Your task to perform on an android device: toggle improve location accuracy Image 0: 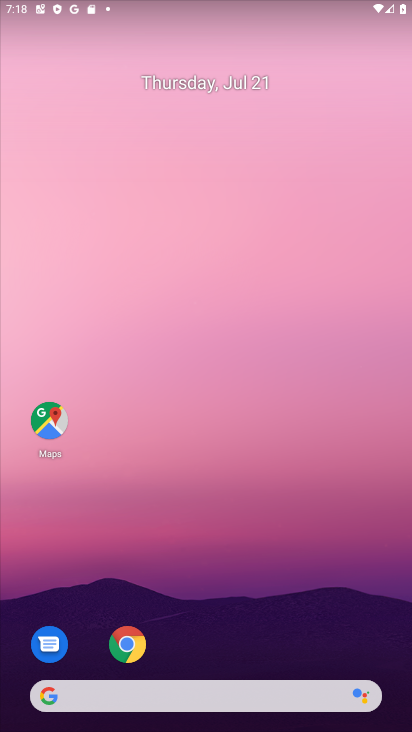
Step 0: drag from (280, 521) to (291, 173)
Your task to perform on an android device: toggle improve location accuracy Image 1: 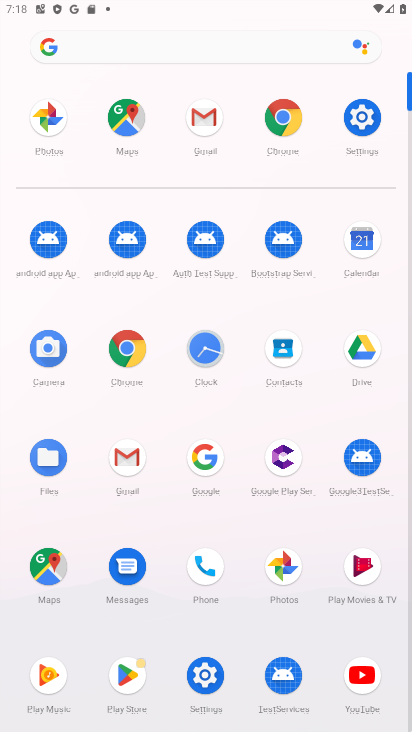
Step 1: click (364, 123)
Your task to perform on an android device: toggle improve location accuracy Image 2: 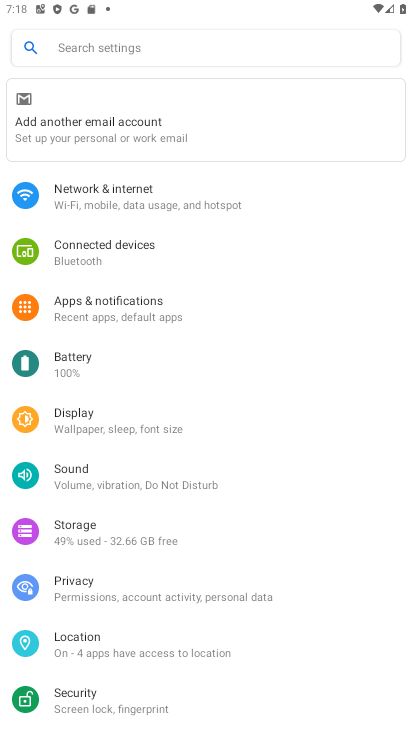
Step 2: click (99, 645)
Your task to perform on an android device: toggle improve location accuracy Image 3: 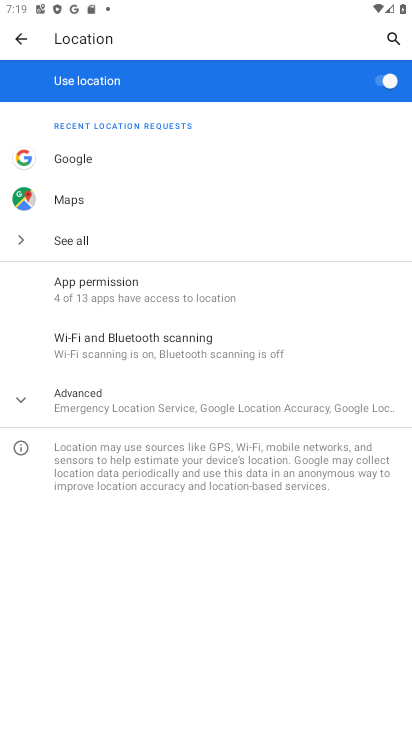
Step 3: task complete